Your task to perform on an android device: search for starred emails in the gmail app Image 0: 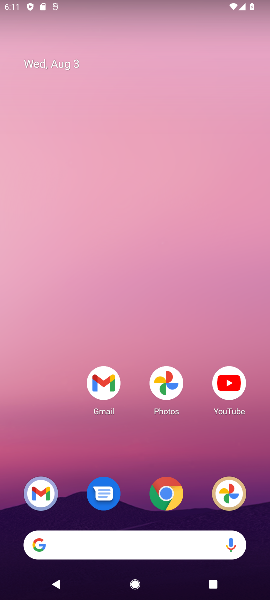
Step 0: click (104, 384)
Your task to perform on an android device: search for starred emails in the gmail app Image 1: 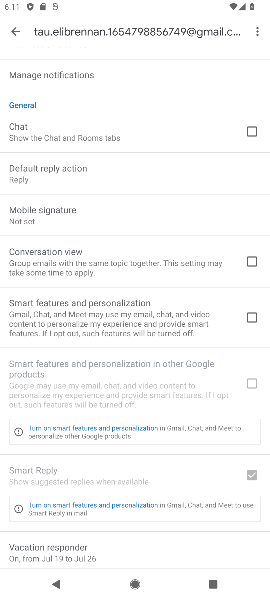
Step 1: click (15, 28)
Your task to perform on an android device: search for starred emails in the gmail app Image 2: 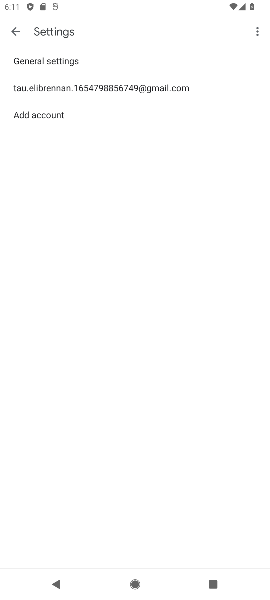
Step 2: click (14, 28)
Your task to perform on an android device: search for starred emails in the gmail app Image 3: 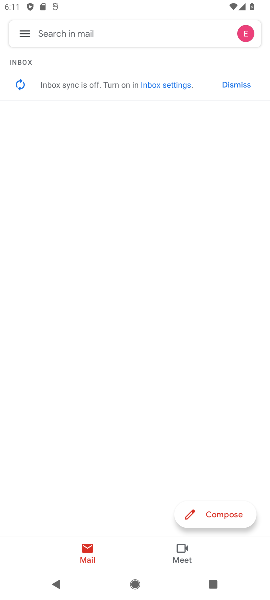
Step 3: click (26, 34)
Your task to perform on an android device: search for starred emails in the gmail app Image 4: 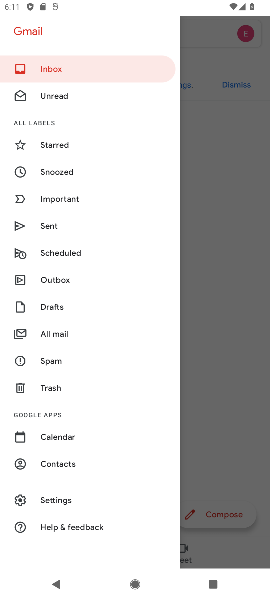
Step 4: click (56, 143)
Your task to perform on an android device: search for starred emails in the gmail app Image 5: 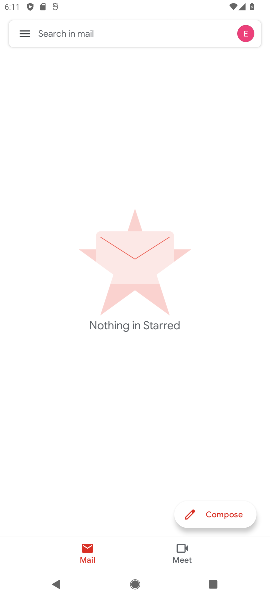
Step 5: task complete